Your task to perform on an android device: turn off location Image 0: 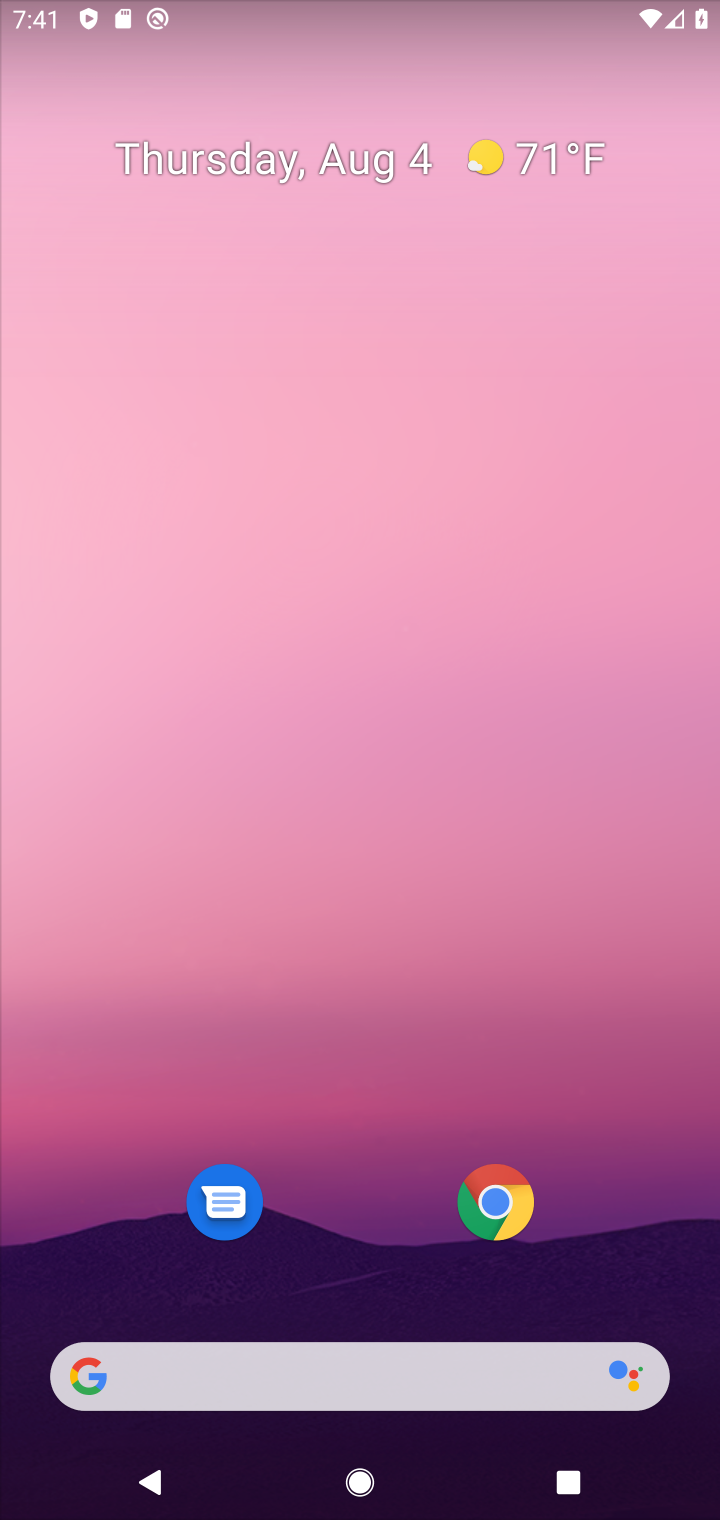
Step 0: click (428, 553)
Your task to perform on an android device: turn off location Image 1: 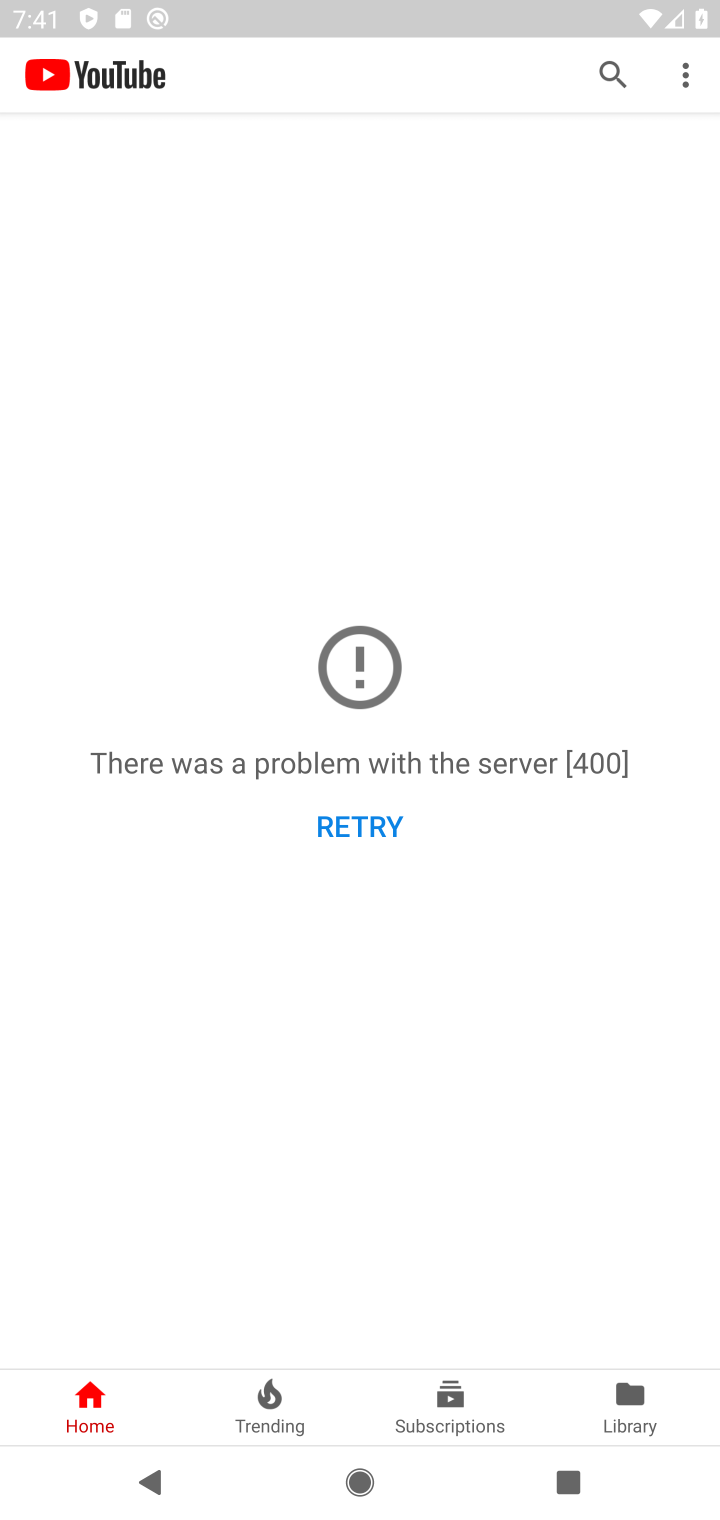
Step 1: drag from (377, 885) to (398, 434)
Your task to perform on an android device: turn off location Image 2: 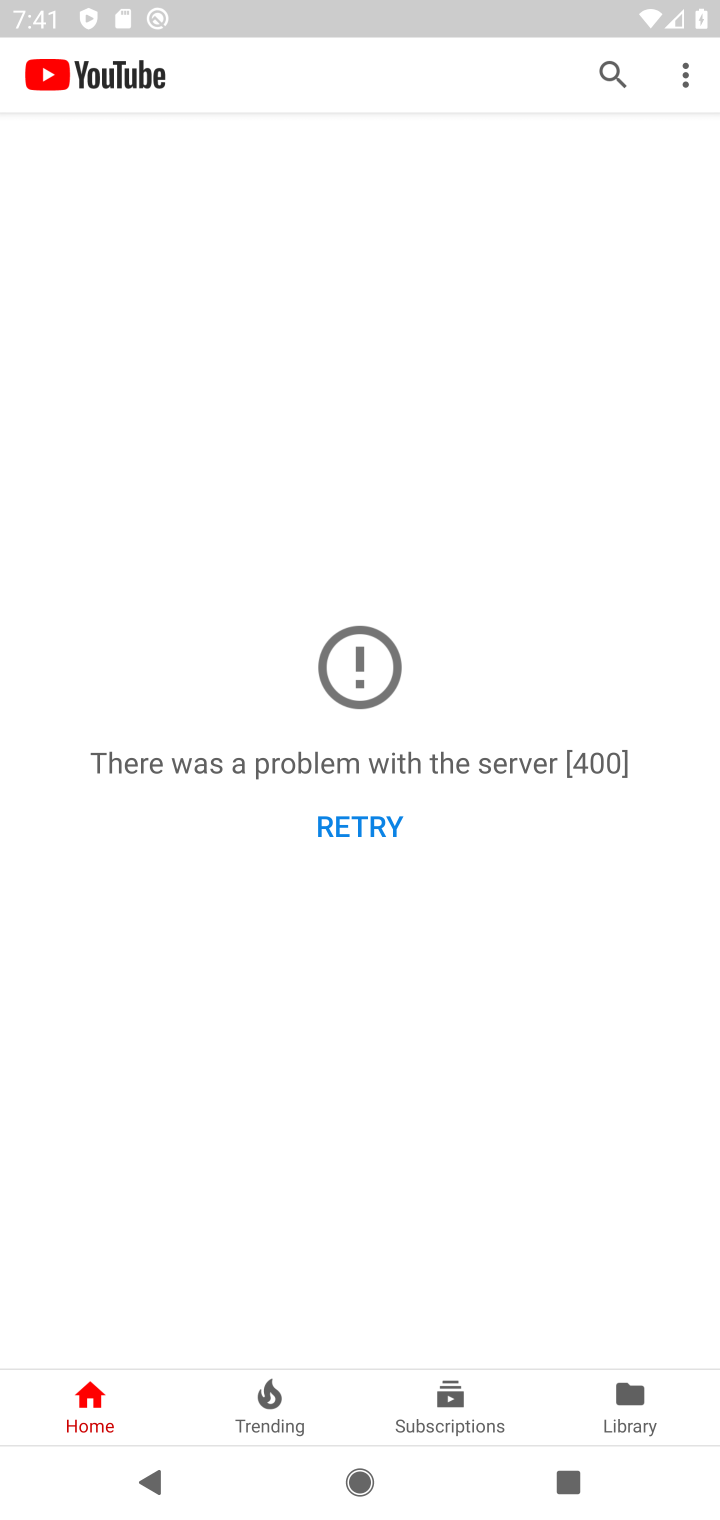
Step 2: drag from (486, 1178) to (582, 596)
Your task to perform on an android device: turn off location Image 3: 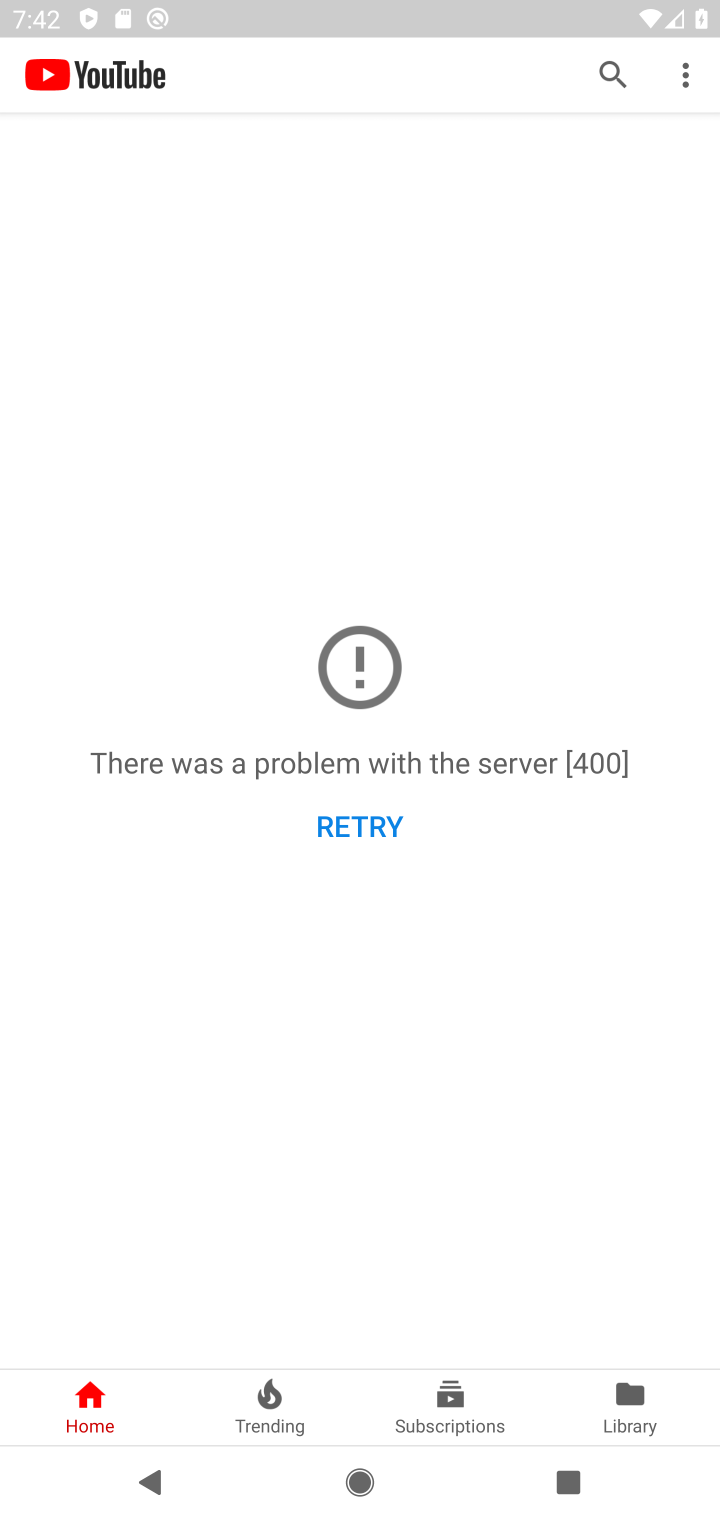
Step 3: drag from (487, 847) to (472, 673)
Your task to perform on an android device: turn off location Image 4: 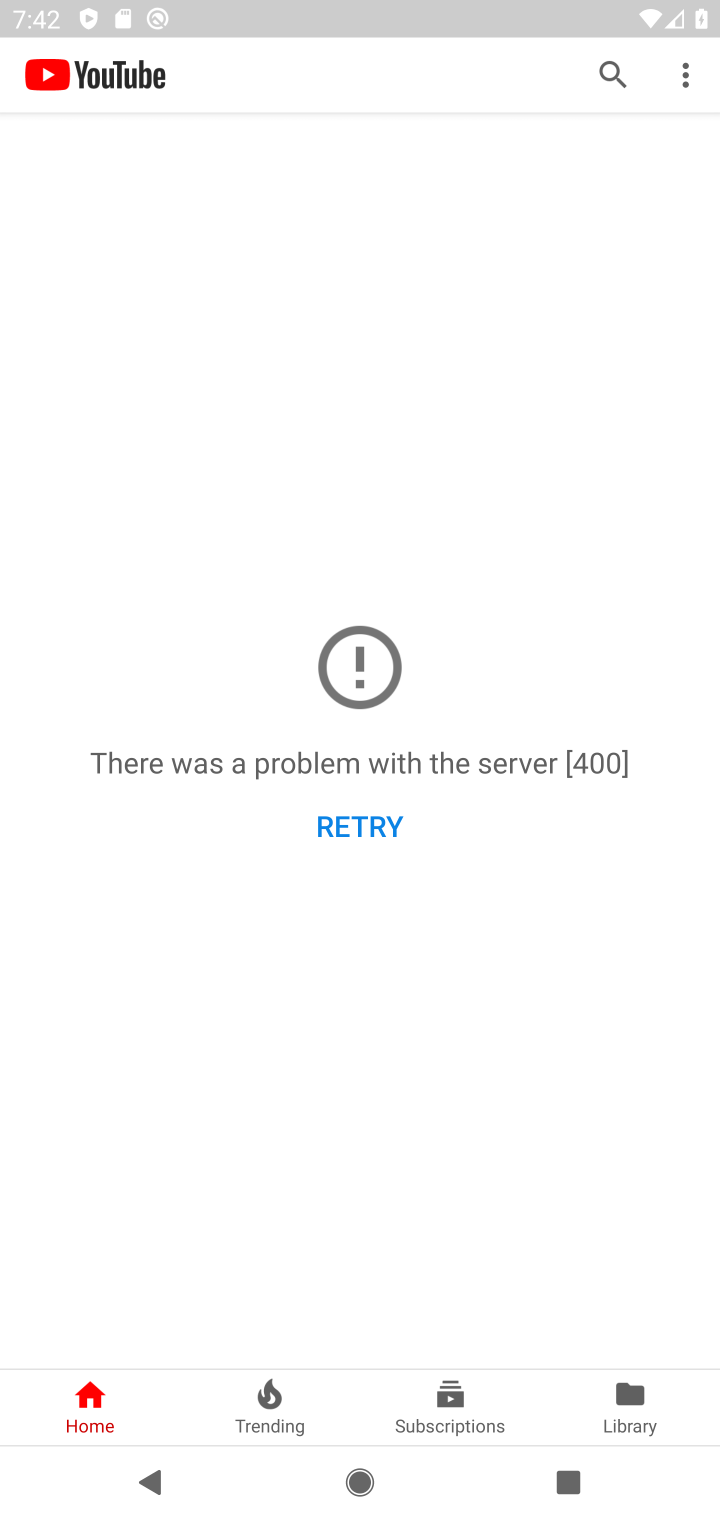
Step 4: drag from (378, 1019) to (380, 296)
Your task to perform on an android device: turn off location Image 5: 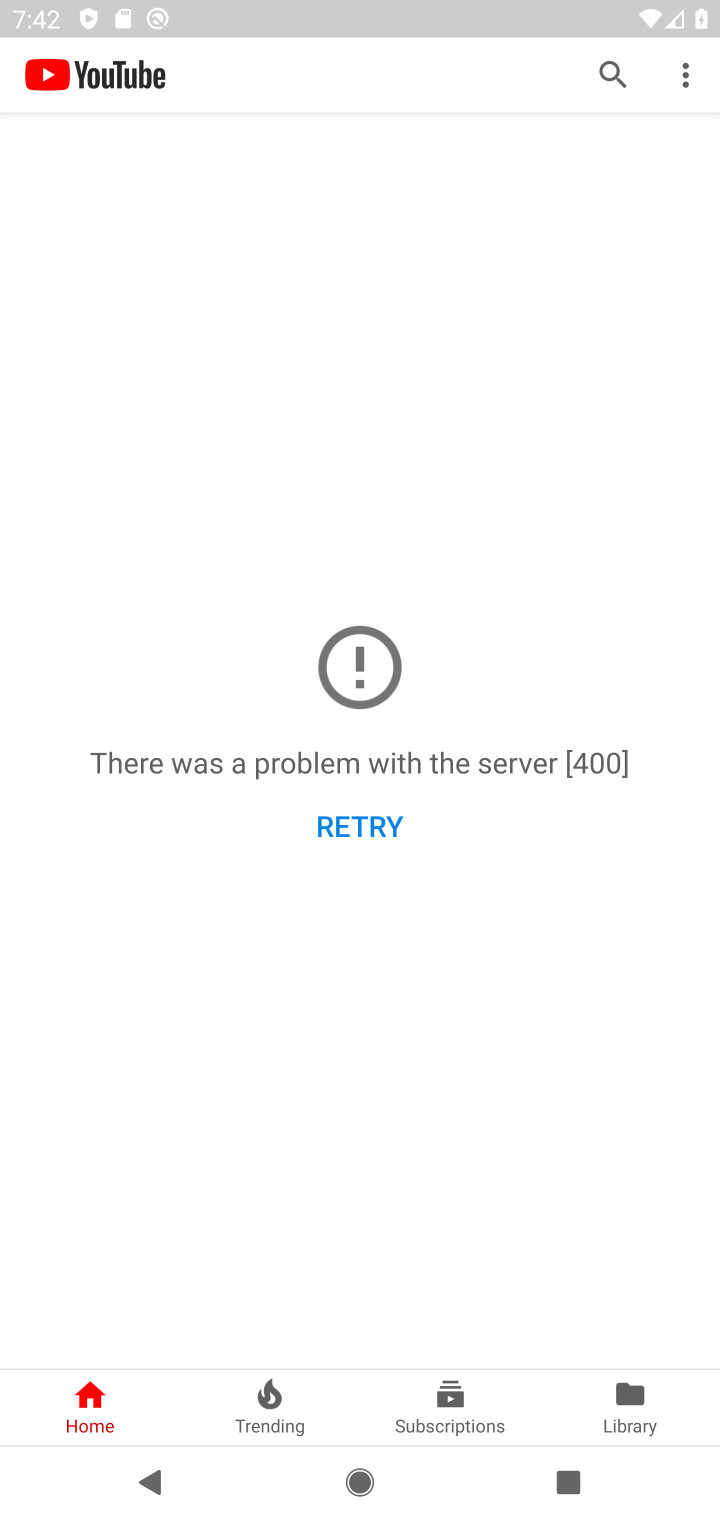
Step 5: press home button
Your task to perform on an android device: turn off location Image 6: 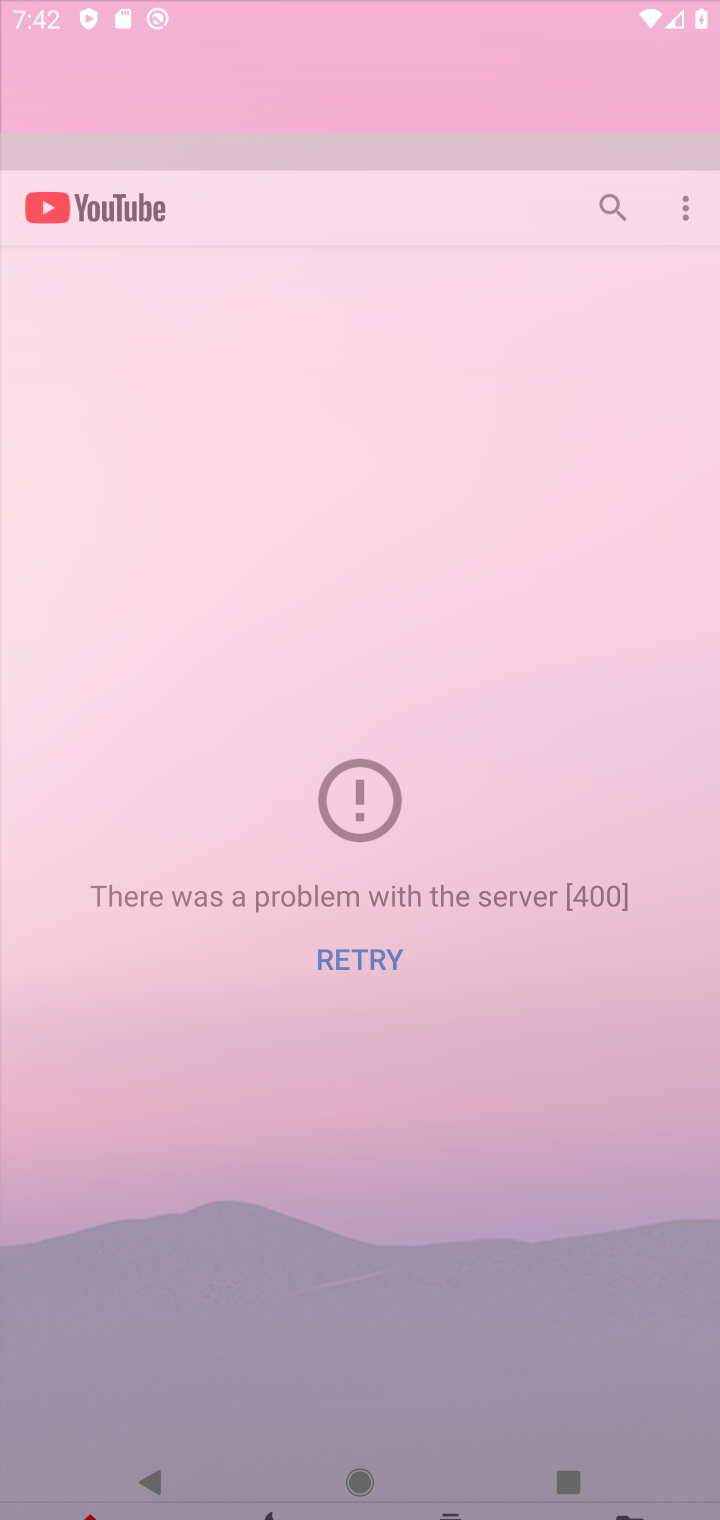
Step 6: drag from (392, 787) to (430, 237)
Your task to perform on an android device: turn off location Image 7: 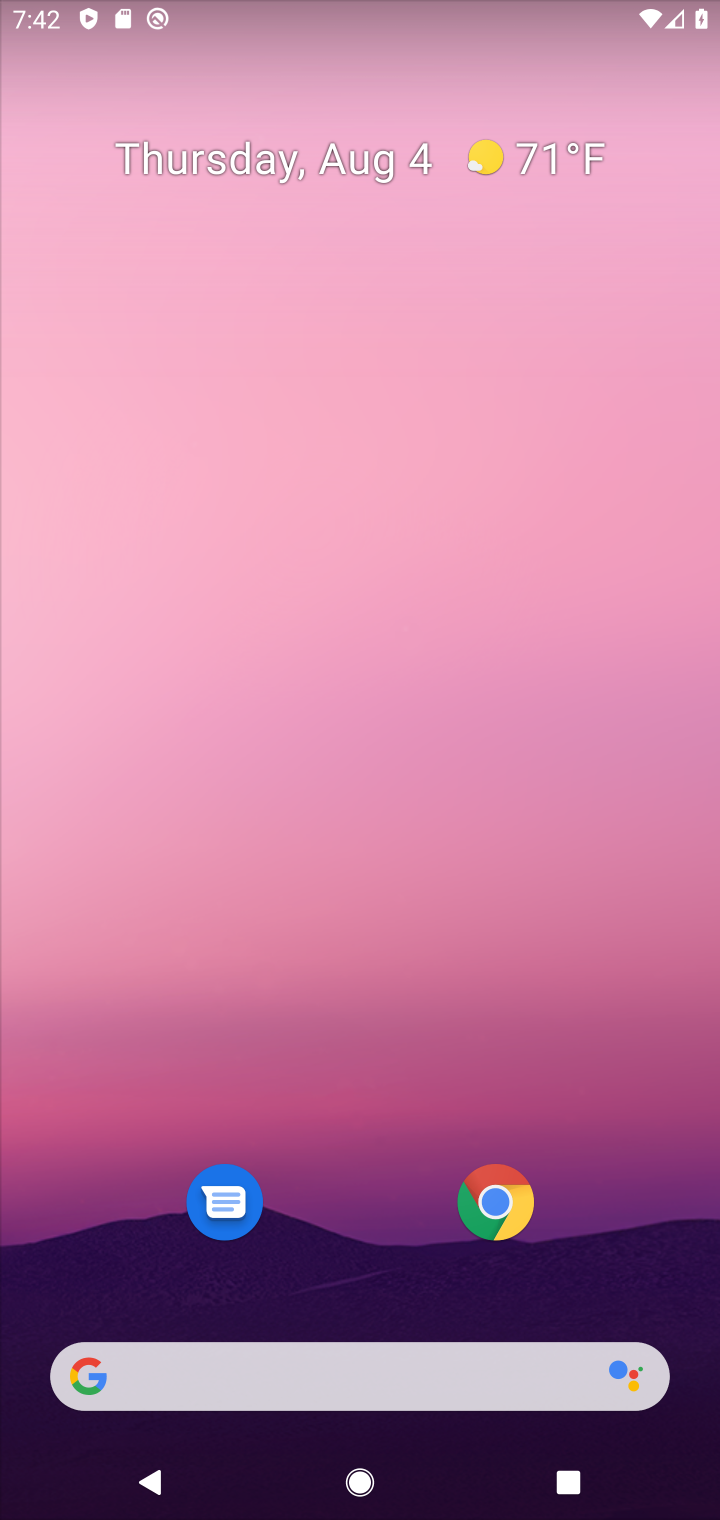
Step 7: drag from (374, 1078) to (436, 49)
Your task to perform on an android device: turn off location Image 8: 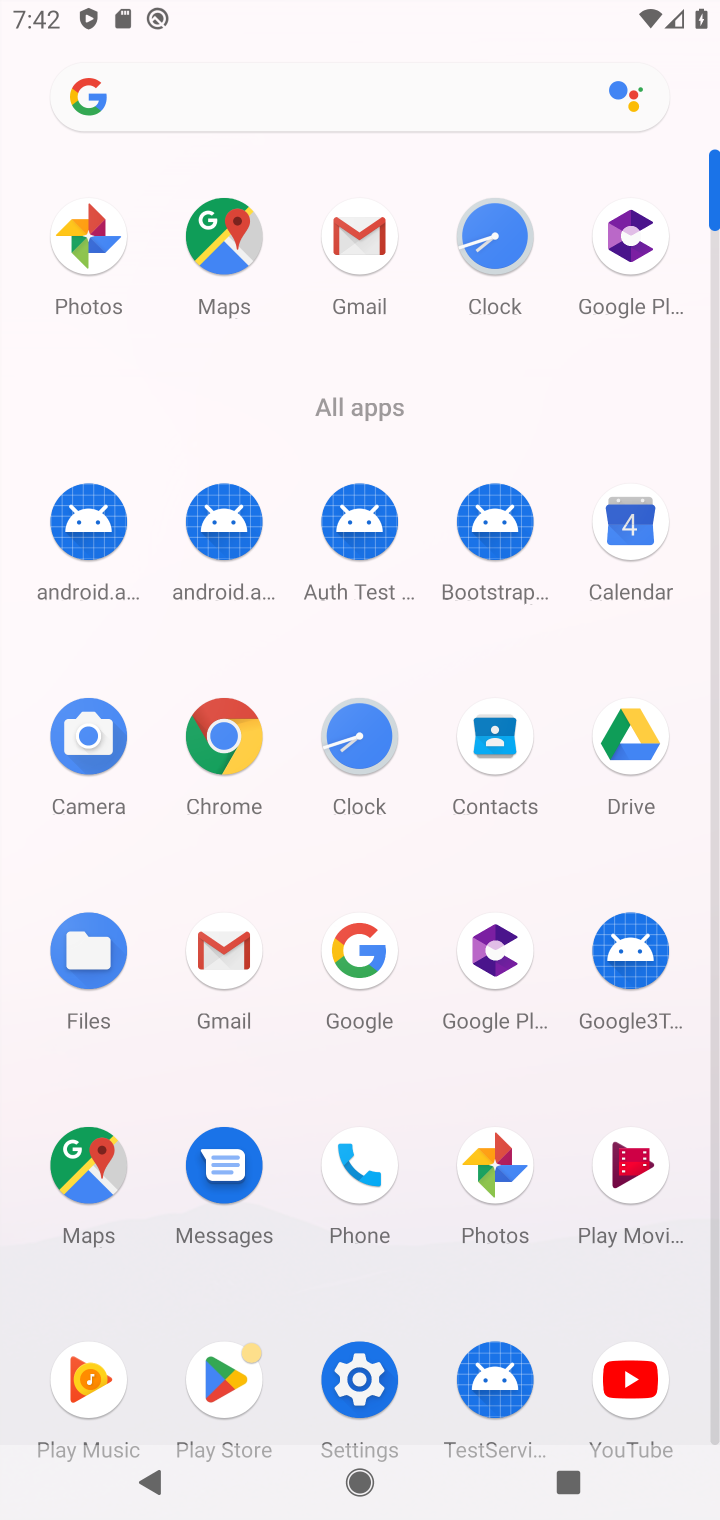
Step 8: click (379, 1381)
Your task to perform on an android device: turn off location Image 9: 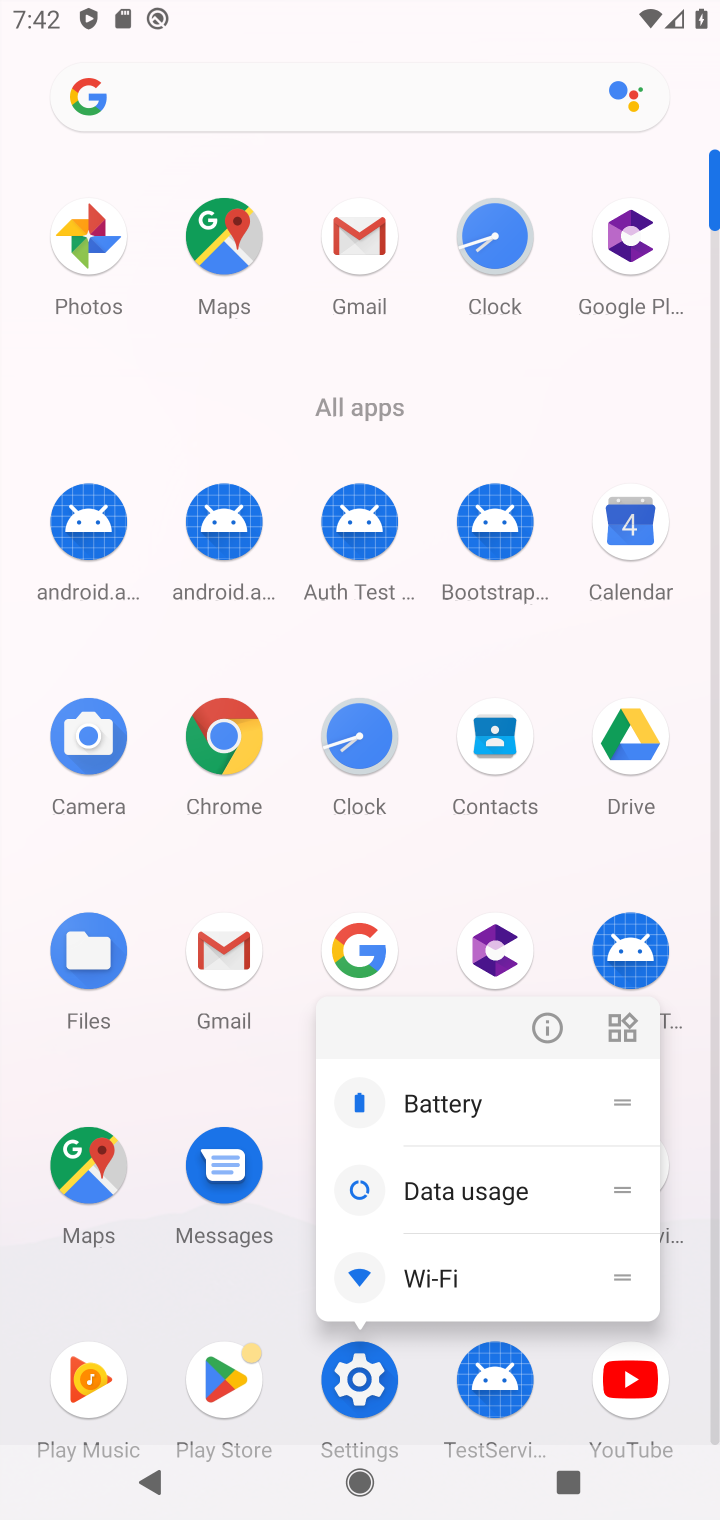
Step 9: click (568, 1009)
Your task to perform on an android device: turn off location Image 10: 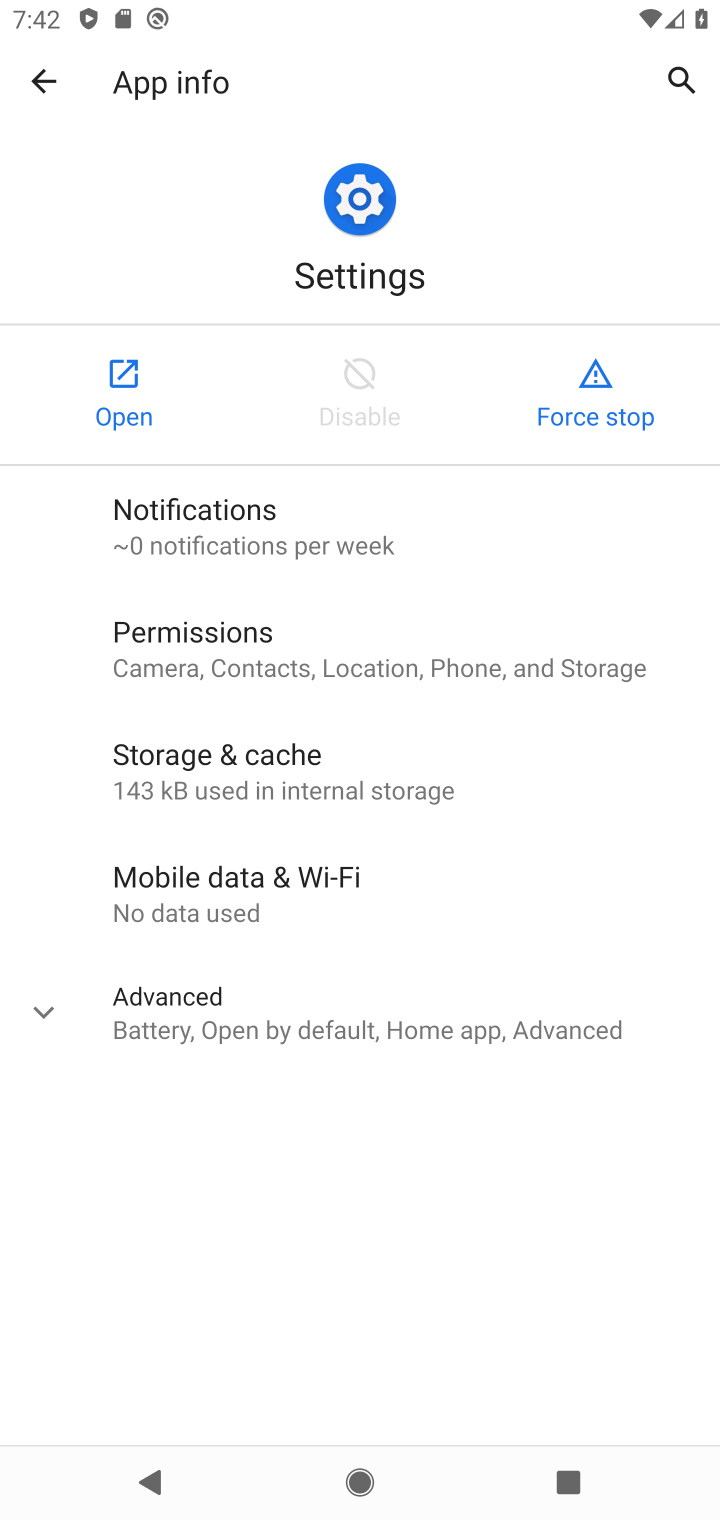
Step 10: click (139, 368)
Your task to perform on an android device: turn off location Image 11: 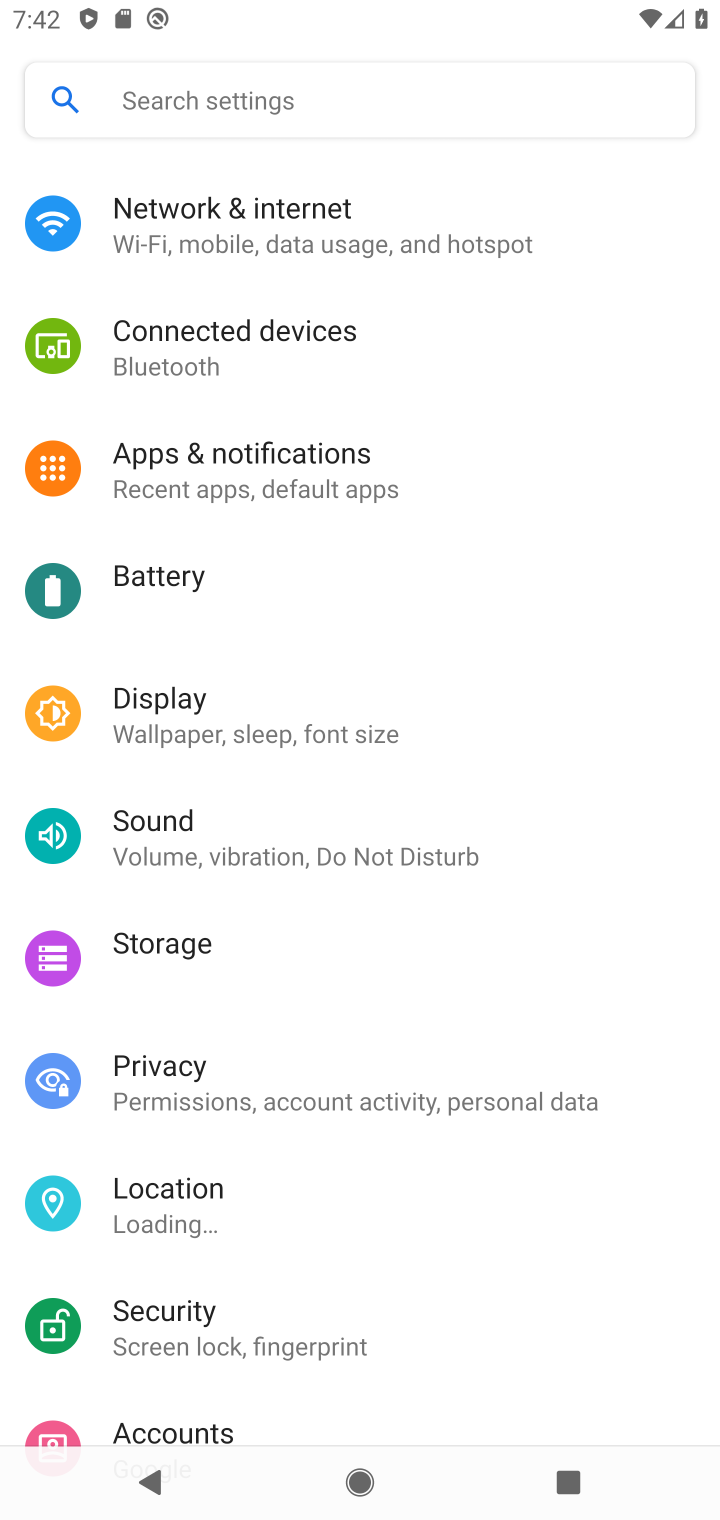
Step 11: drag from (326, 870) to (428, 117)
Your task to perform on an android device: turn off location Image 12: 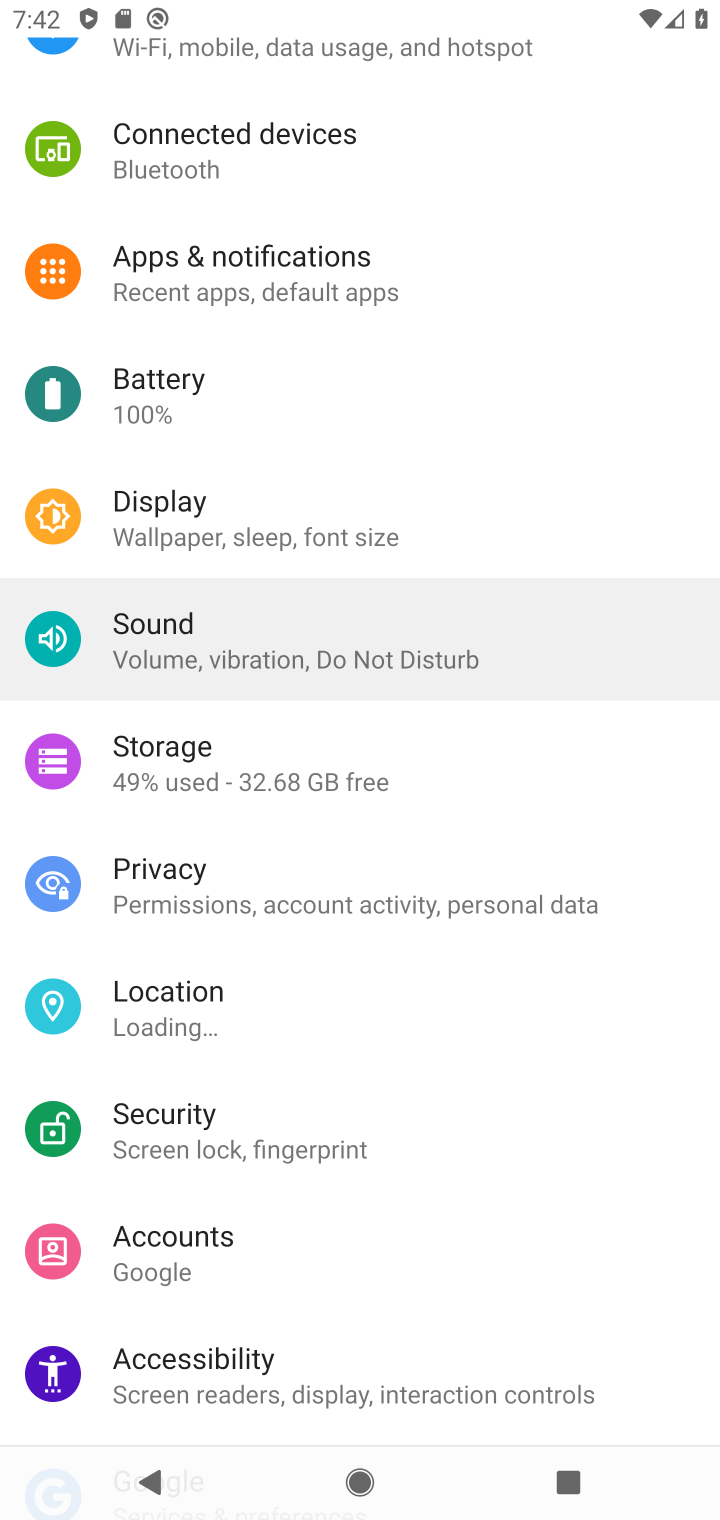
Step 12: drag from (391, 507) to (510, 1518)
Your task to perform on an android device: turn off location Image 13: 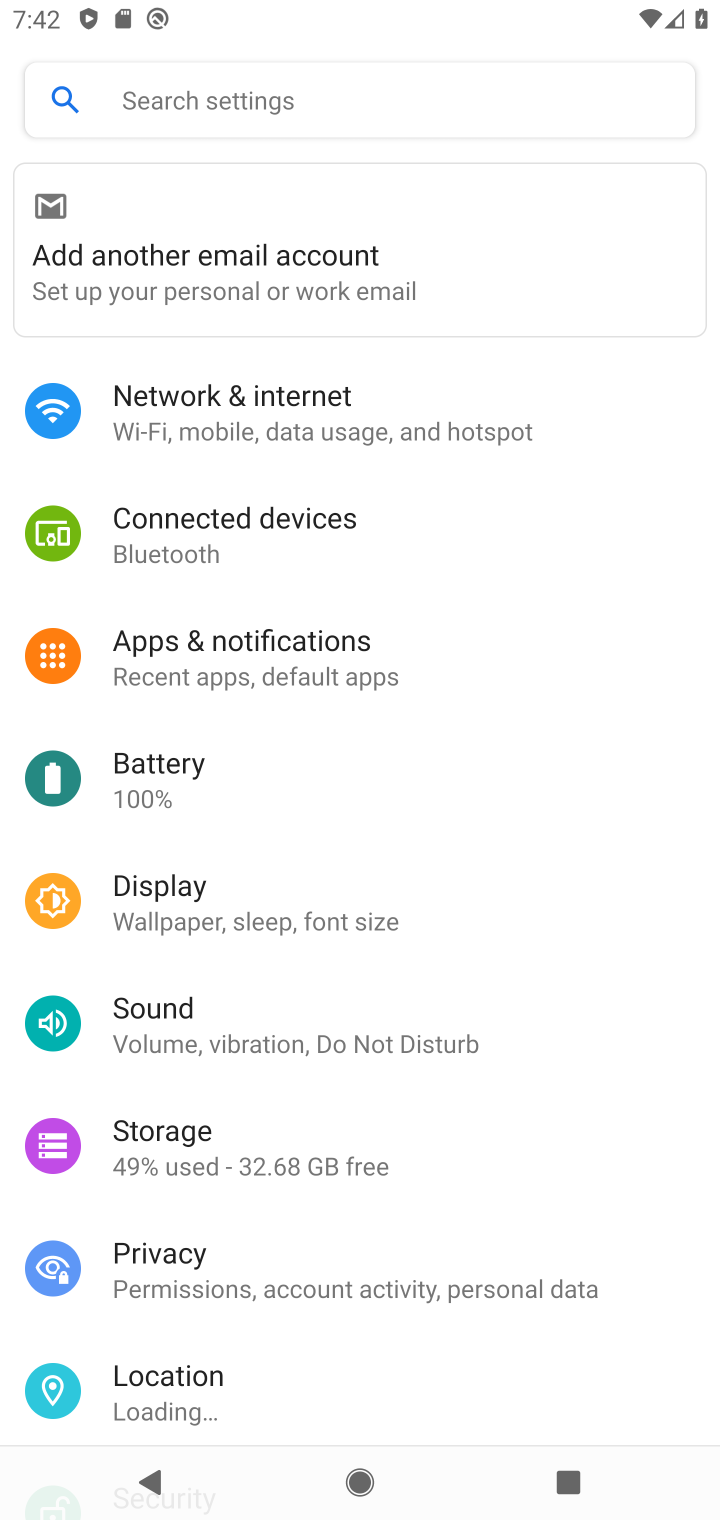
Step 13: click (261, 1366)
Your task to perform on an android device: turn off location Image 14: 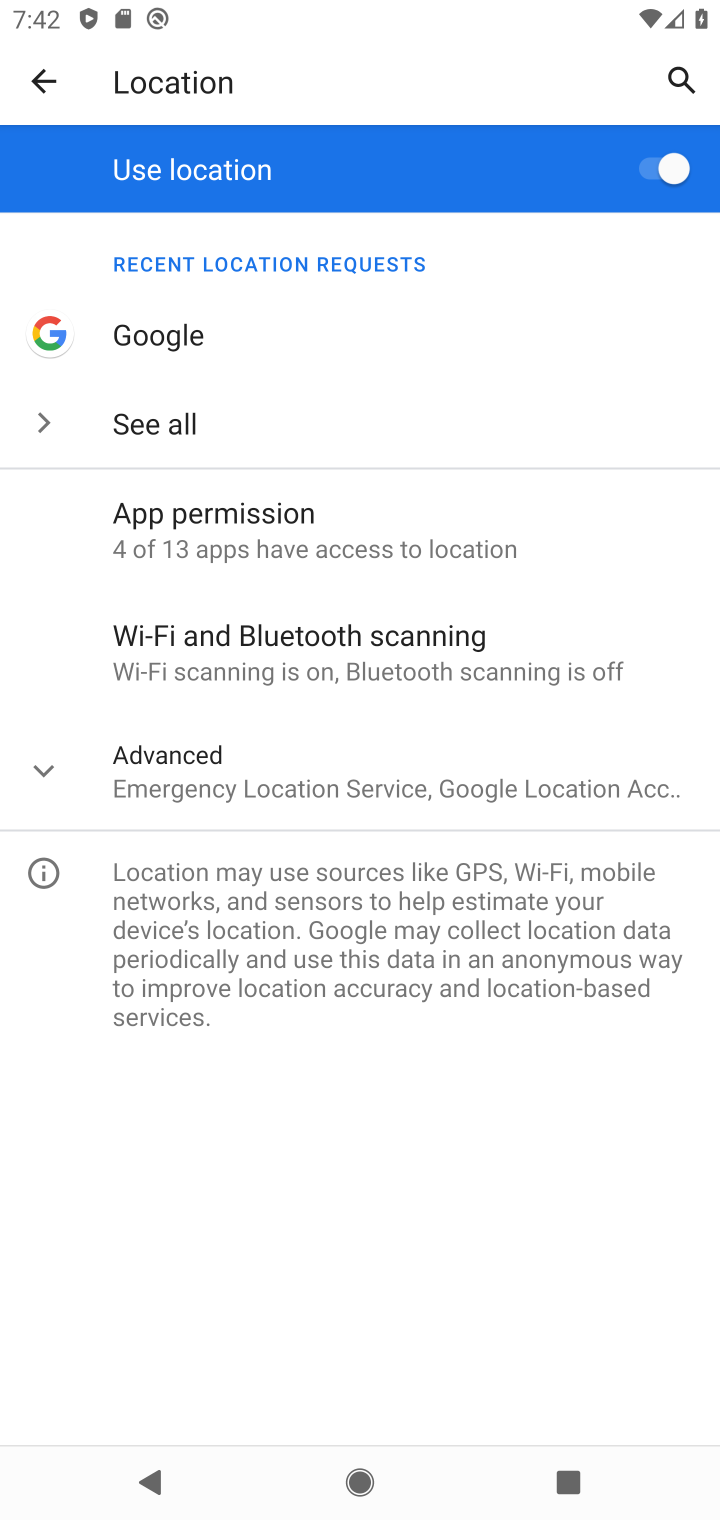
Step 14: click (677, 174)
Your task to perform on an android device: turn off location Image 15: 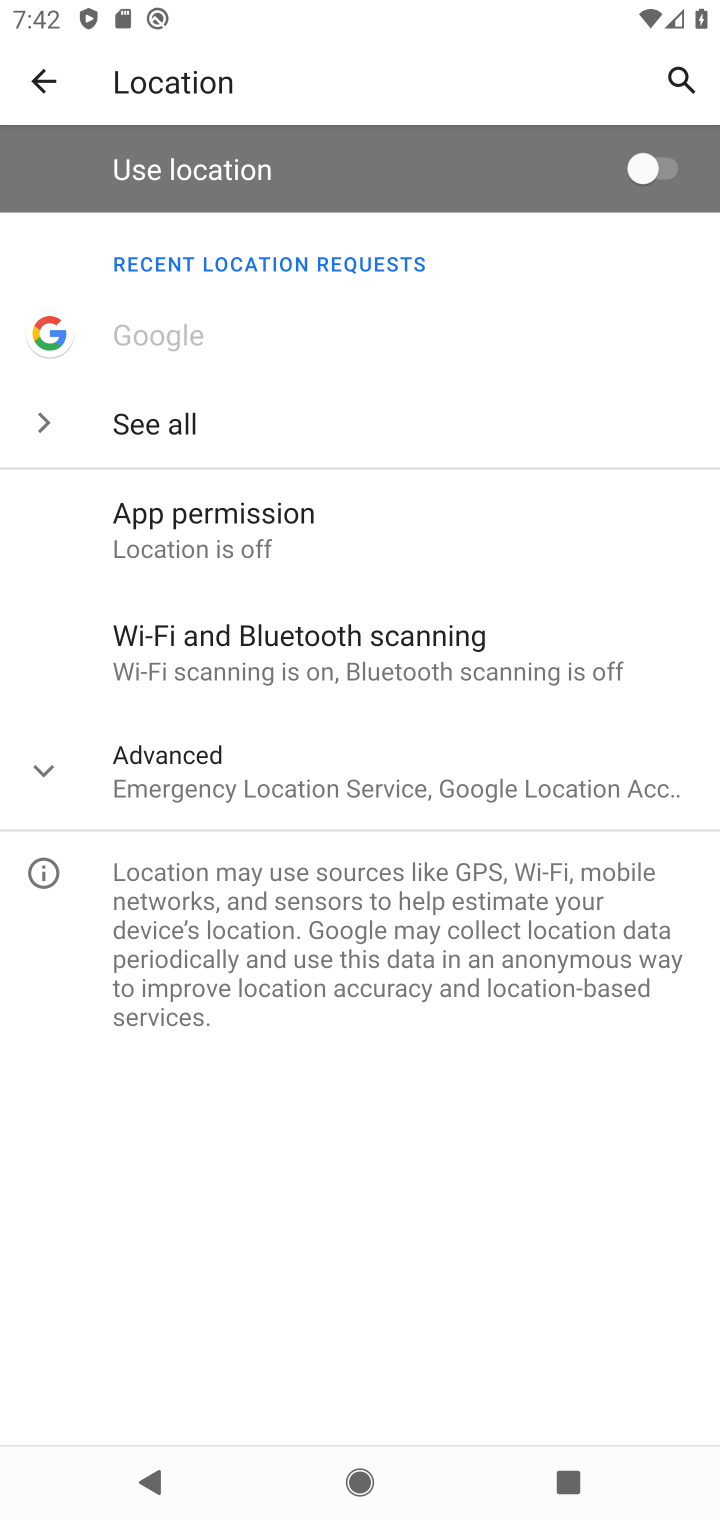
Step 15: task complete